Your task to perform on an android device: Open Maps and search for coffee Image 0: 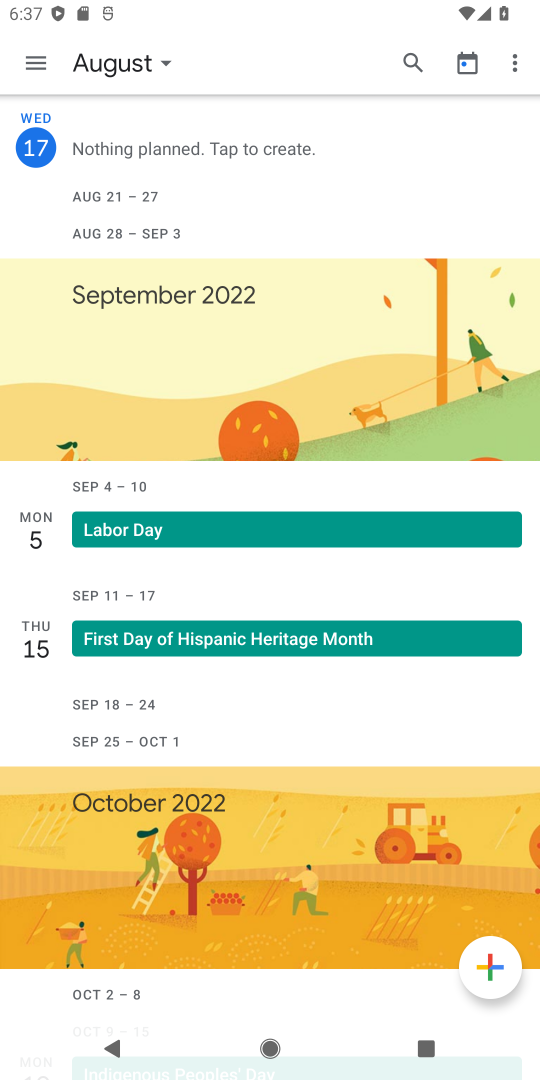
Step 0: press home button
Your task to perform on an android device: Open Maps and search for coffee Image 1: 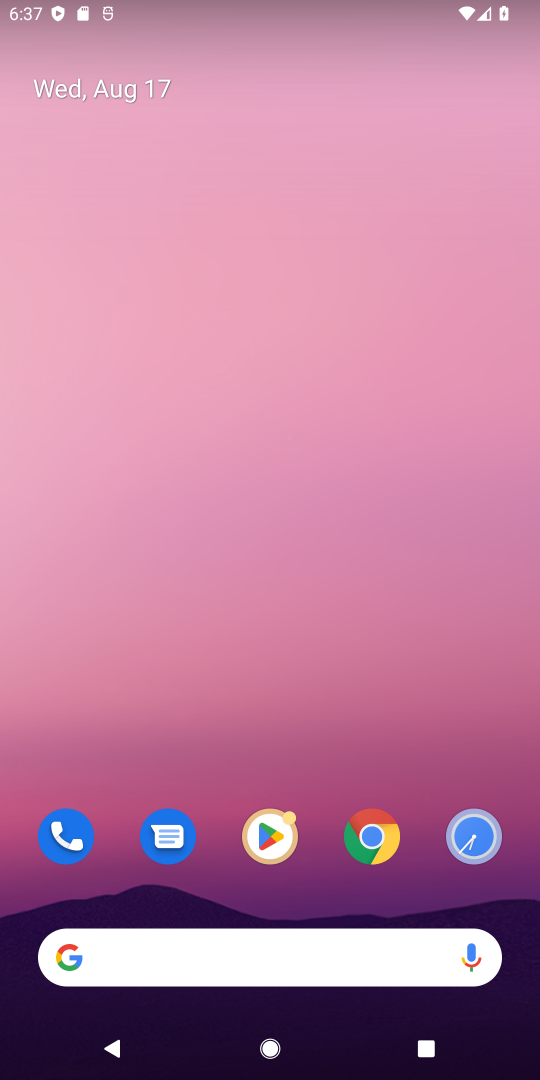
Step 1: drag from (255, 849) to (267, 260)
Your task to perform on an android device: Open Maps and search for coffee Image 2: 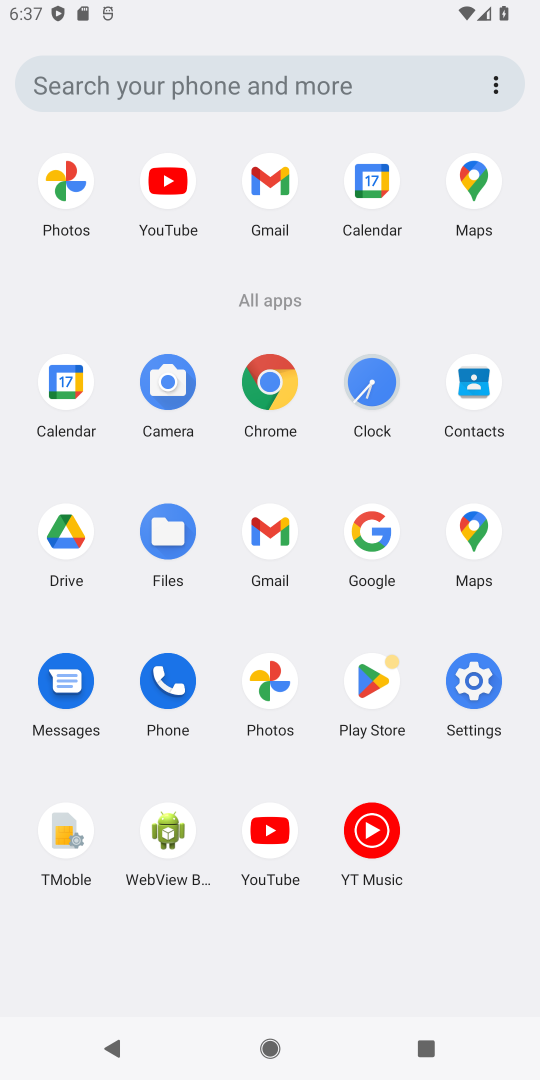
Step 2: click (462, 513)
Your task to perform on an android device: Open Maps and search for coffee Image 3: 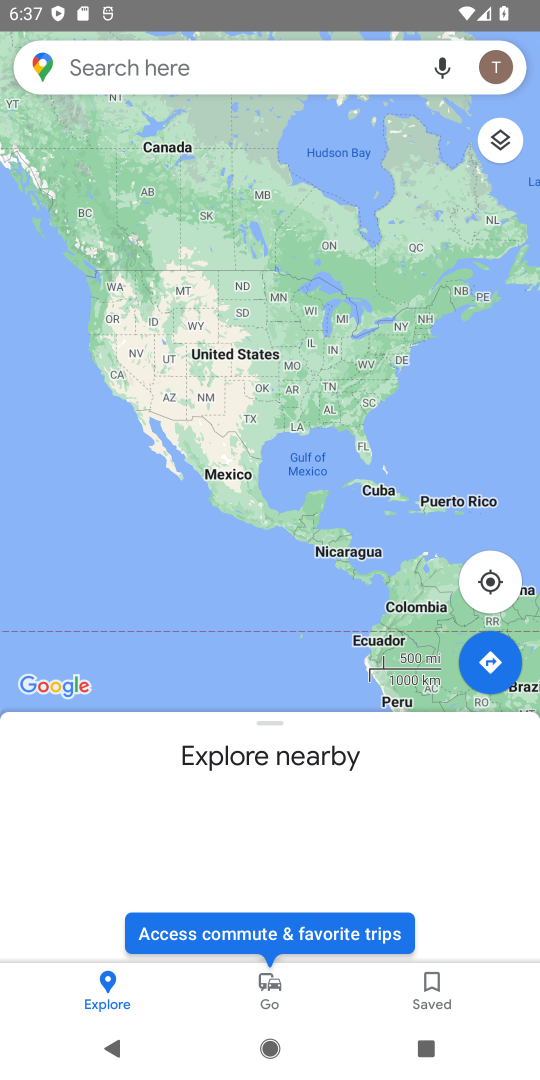
Step 3: click (237, 76)
Your task to perform on an android device: Open Maps and search for coffee Image 4: 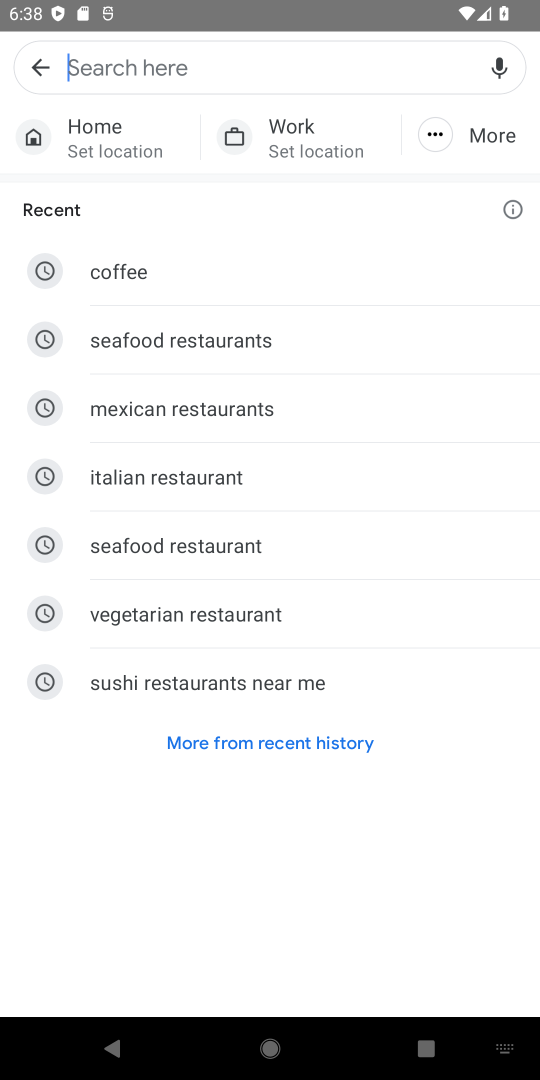
Step 4: click (119, 274)
Your task to perform on an android device: Open Maps and search for coffee Image 5: 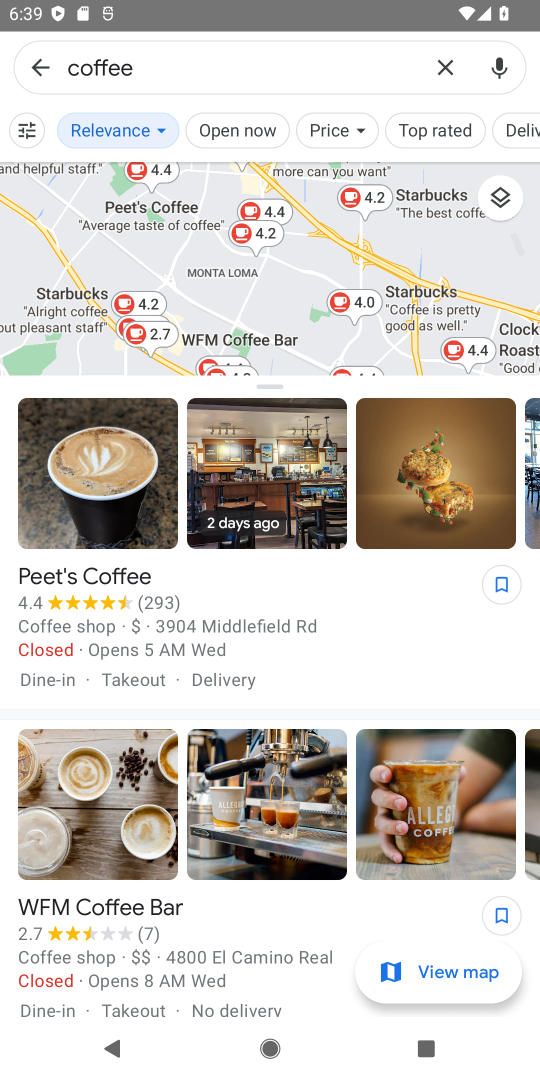
Step 5: task complete